Your task to perform on an android device: toggle pop-ups in chrome Image 0: 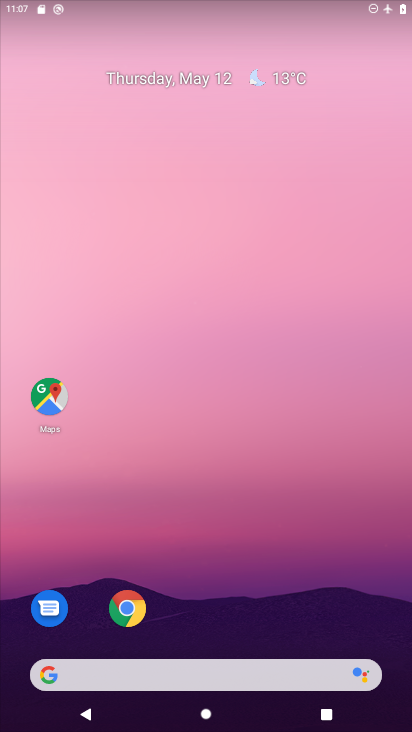
Step 0: click (130, 604)
Your task to perform on an android device: toggle pop-ups in chrome Image 1: 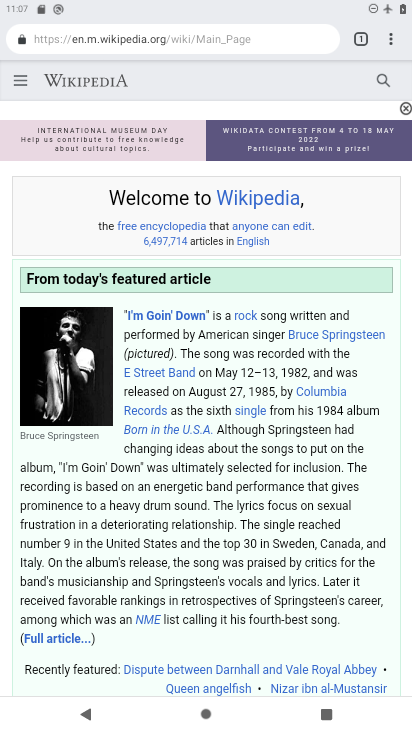
Step 1: click (386, 42)
Your task to perform on an android device: toggle pop-ups in chrome Image 2: 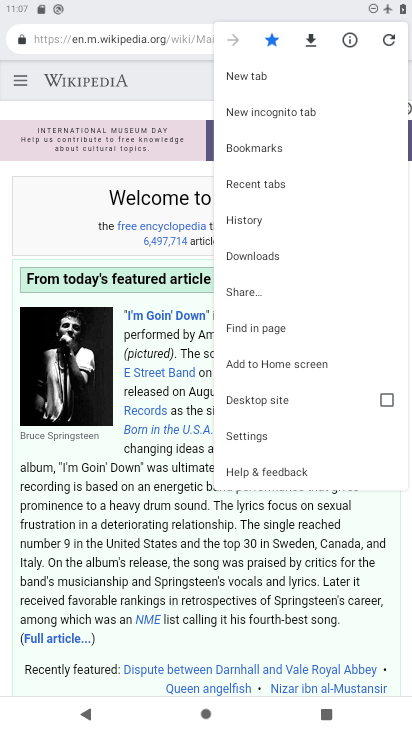
Step 2: click (263, 425)
Your task to perform on an android device: toggle pop-ups in chrome Image 3: 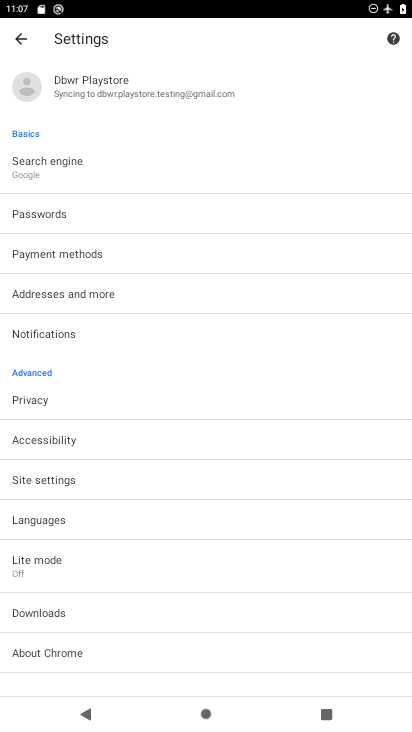
Step 3: click (56, 479)
Your task to perform on an android device: toggle pop-ups in chrome Image 4: 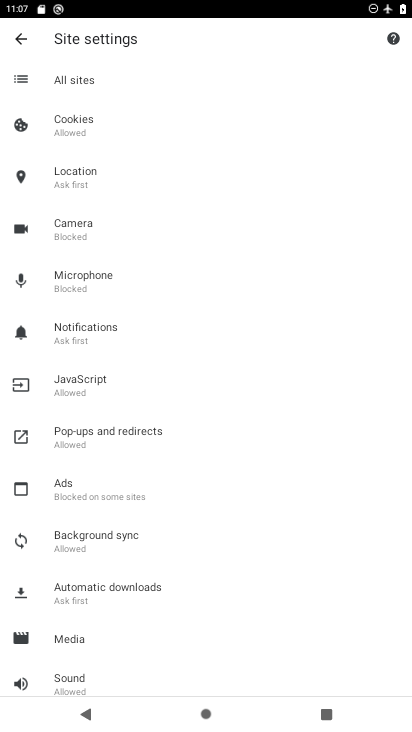
Step 4: click (180, 433)
Your task to perform on an android device: toggle pop-ups in chrome Image 5: 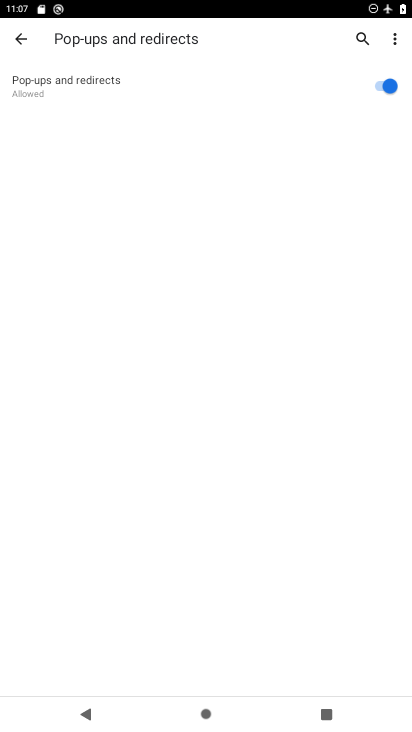
Step 5: click (381, 94)
Your task to perform on an android device: toggle pop-ups in chrome Image 6: 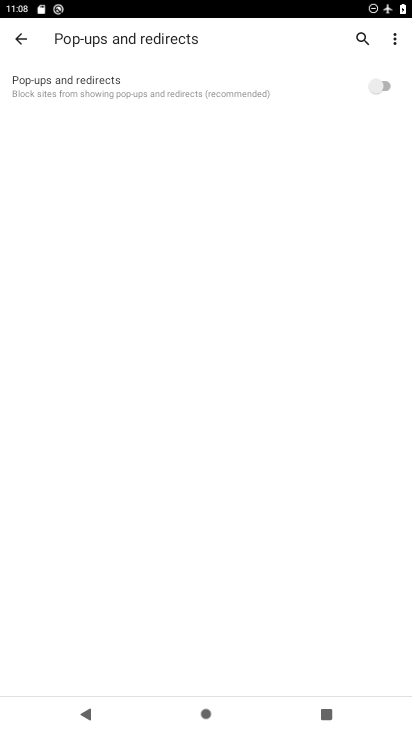
Step 6: task complete